Your task to perform on an android device: Open Android settings Image 0: 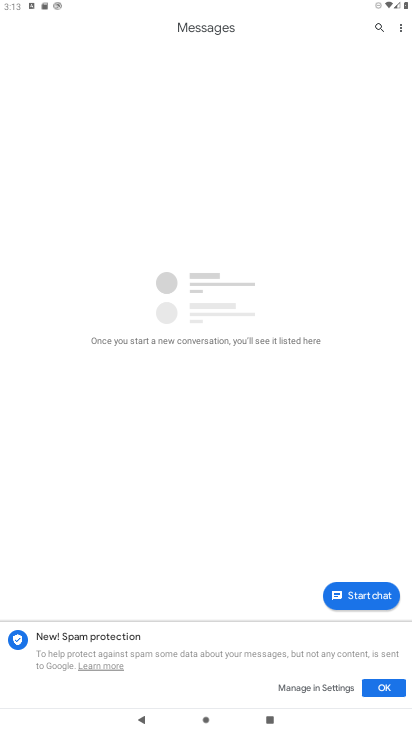
Step 0: press home button
Your task to perform on an android device: Open Android settings Image 1: 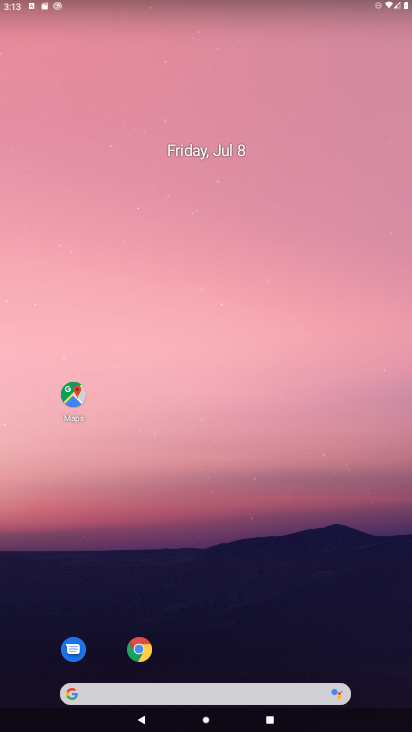
Step 1: drag from (378, 654) to (349, 121)
Your task to perform on an android device: Open Android settings Image 2: 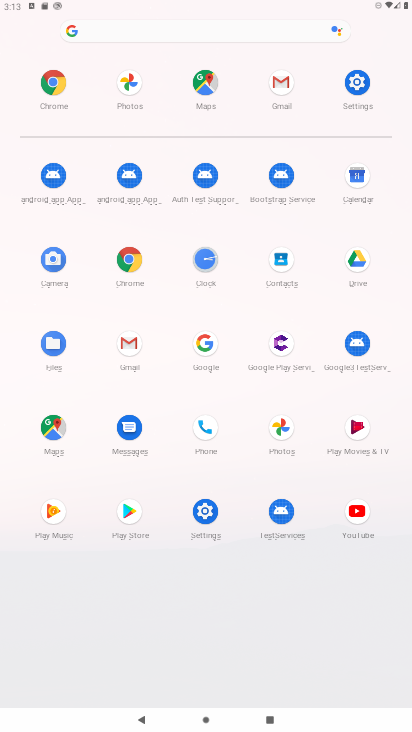
Step 2: click (207, 513)
Your task to perform on an android device: Open Android settings Image 3: 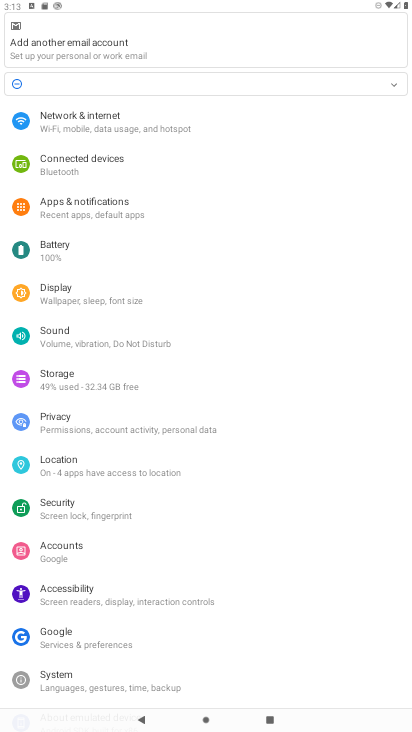
Step 3: drag from (186, 647) to (204, 254)
Your task to perform on an android device: Open Android settings Image 4: 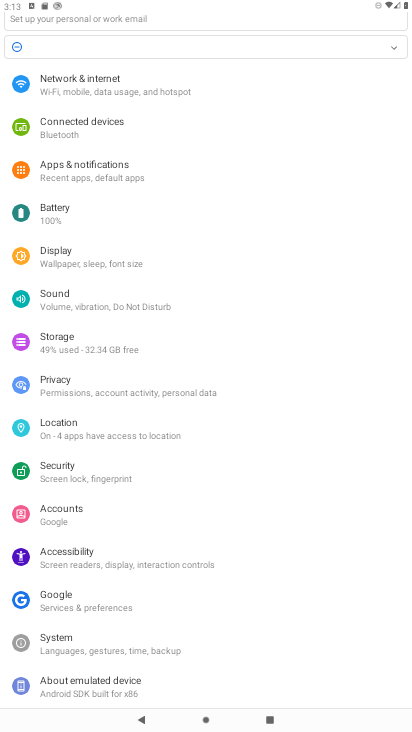
Step 4: click (75, 688)
Your task to perform on an android device: Open Android settings Image 5: 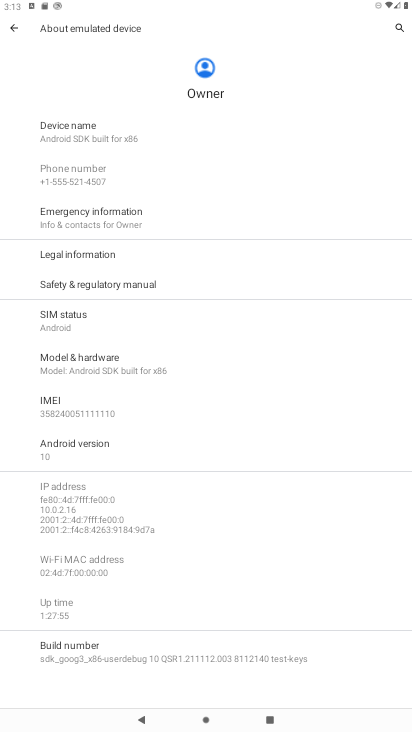
Step 5: task complete